Your task to perform on an android device: Show me popular games on the Play Store Image 0: 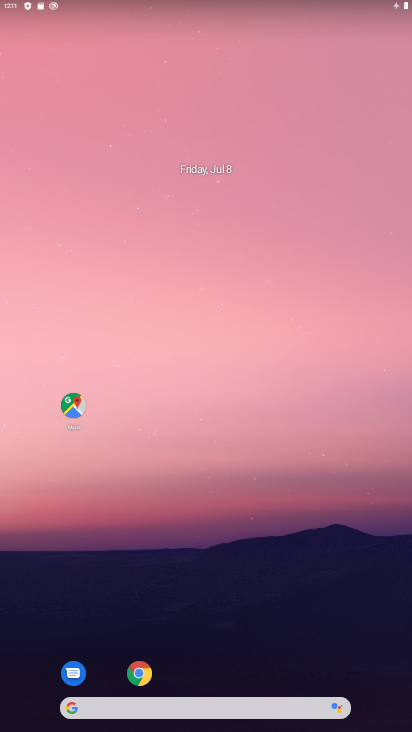
Step 0: drag from (230, 555) to (304, 132)
Your task to perform on an android device: Show me popular games on the Play Store Image 1: 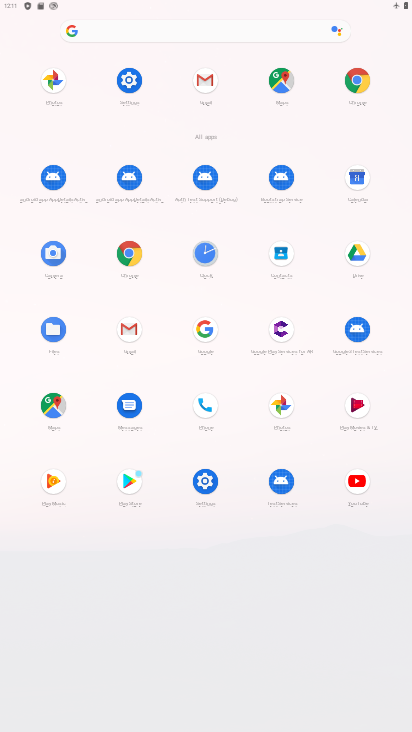
Step 1: click (123, 477)
Your task to perform on an android device: Show me popular games on the Play Store Image 2: 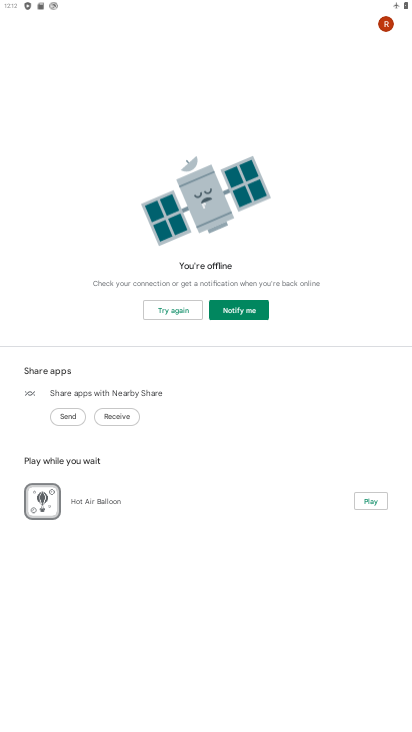
Step 2: task complete